Your task to perform on an android device: add a contact Image 0: 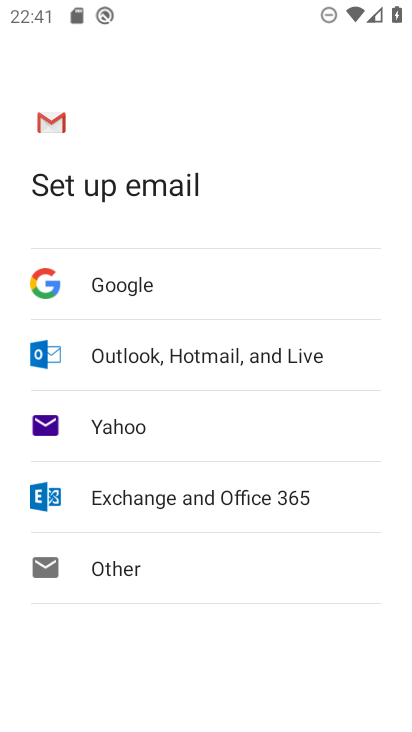
Step 0: press home button
Your task to perform on an android device: add a contact Image 1: 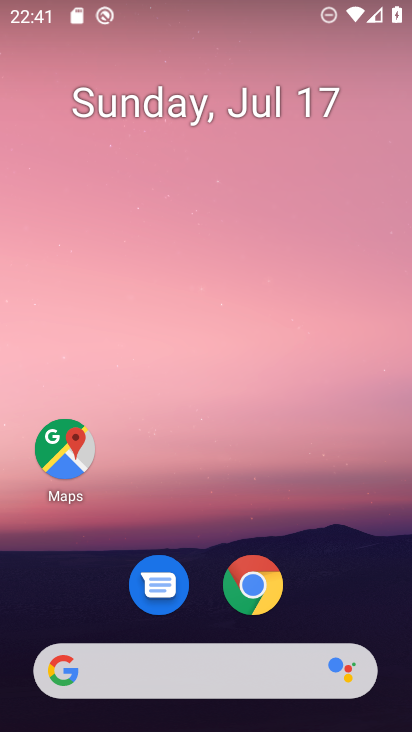
Step 1: drag from (191, 623) to (346, 28)
Your task to perform on an android device: add a contact Image 2: 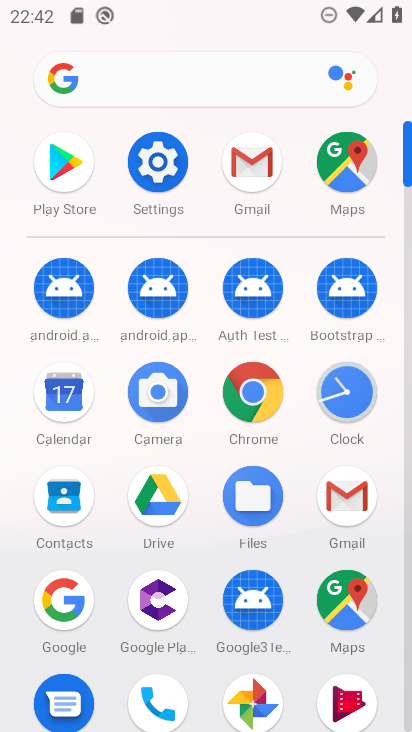
Step 2: click (67, 502)
Your task to perform on an android device: add a contact Image 3: 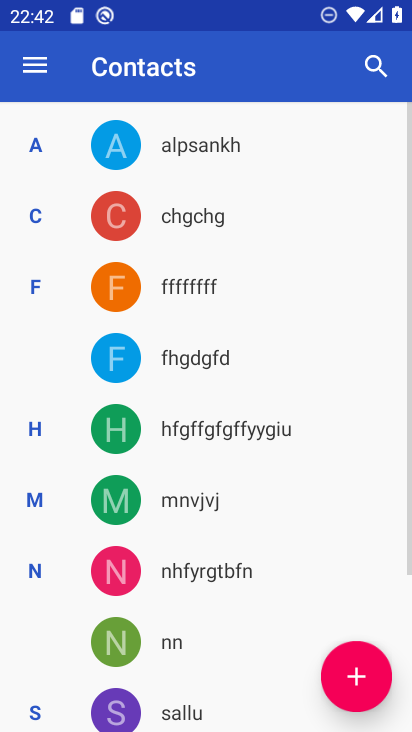
Step 3: click (342, 673)
Your task to perform on an android device: add a contact Image 4: 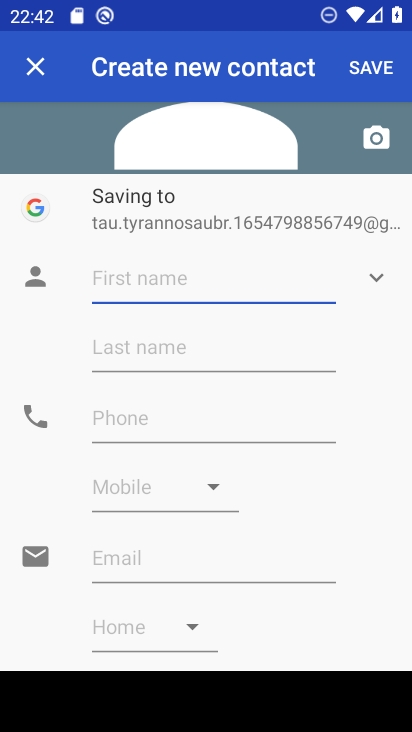
Step 4: type "mnjjuuuhh"
Your task to perform on an android device: add a contact Image 5: 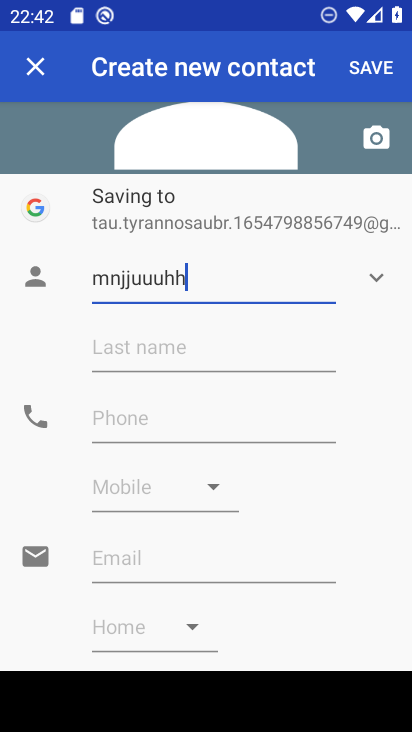
Step 5: click (122, 417)
Your task to perform on an android device: add a contact Image 6: 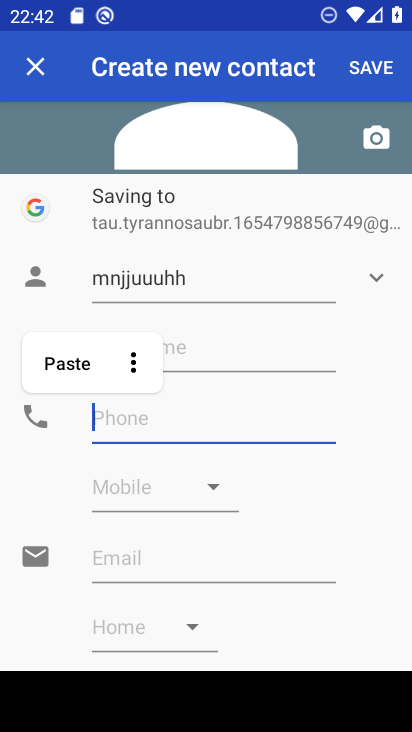
Step 6: type "677855865"
Your task to perform on an android device: add a contact Image 7: 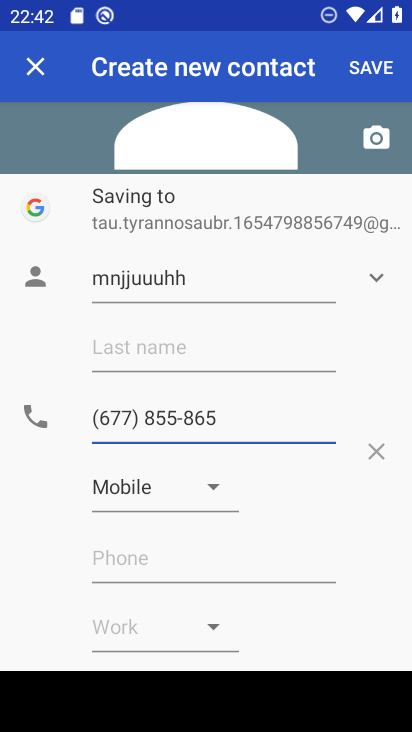
Step 7: click (378, 75)
Your task to perform on an android device: add a contact Image 8: 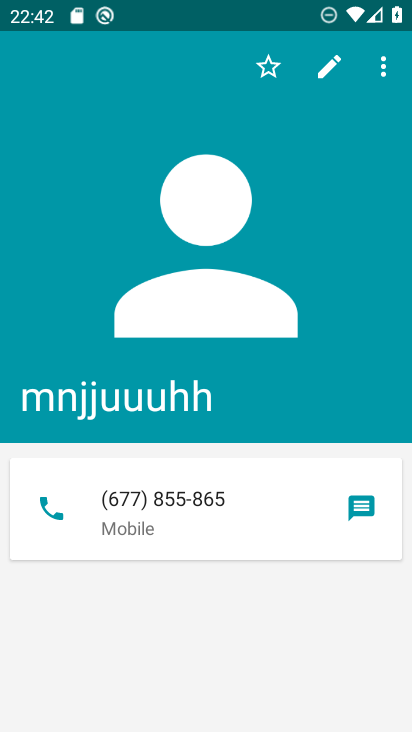
Step 8: task complete